Your task to perform on an android device: open device folders in google photos Image 0: 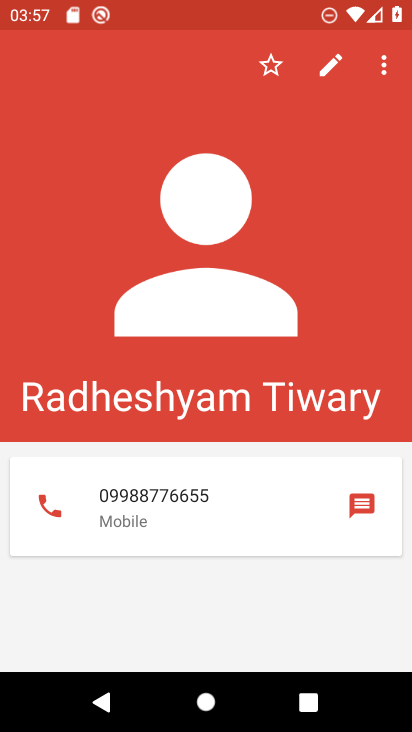
Step 0: press back button
Your task to perform on an android device: open device folders in google photos Image 1: 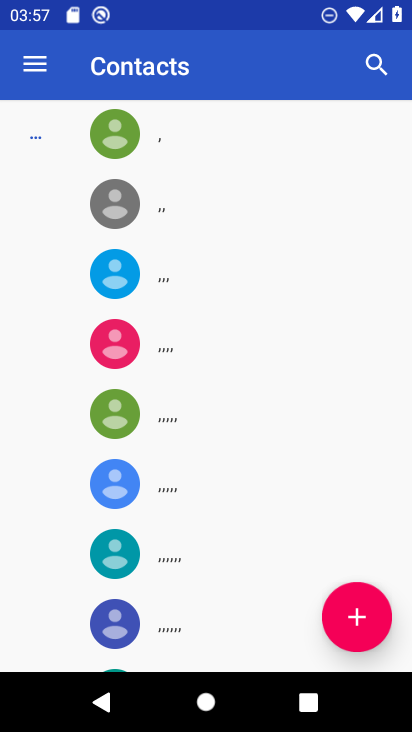
Step 1: press back button
Your task to perform on an android device: open device folders in google photos Image 2: 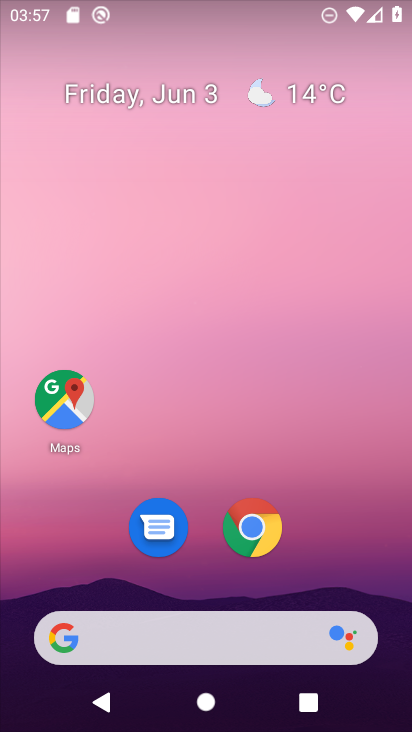
Step 2: drag from (339, 565) to (253, 5)
Your task to perform on an android device: open device folders in google photos Image 3: 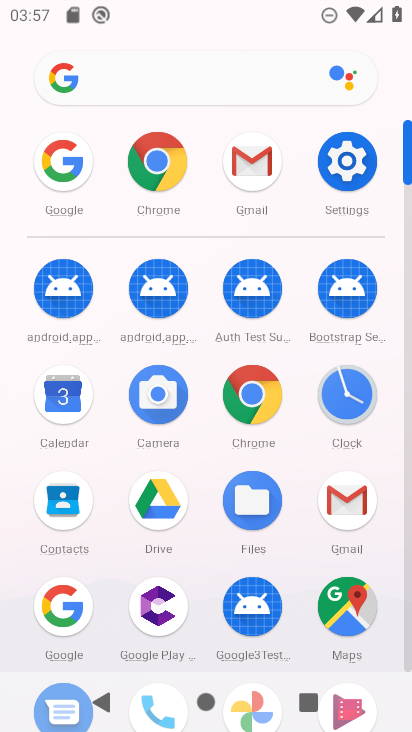
Step 3: drag from (195, 456) to (221, 184)
Your task to perform on an android device: open device folders in google photos Image 4: 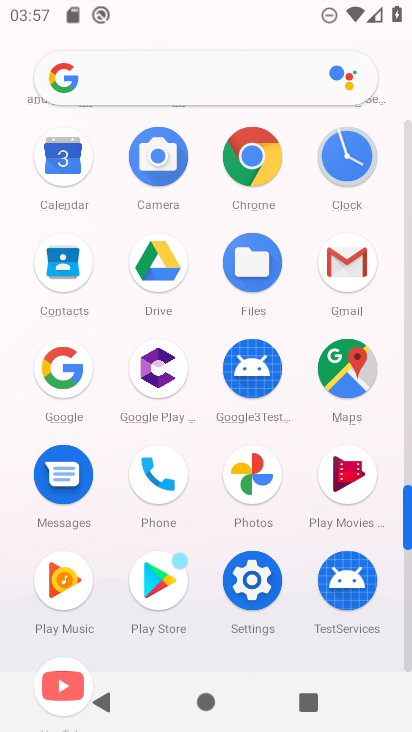
Step 4: click (253, 473)
Your task to perform on an android device: open device folders in google photos Image 5: 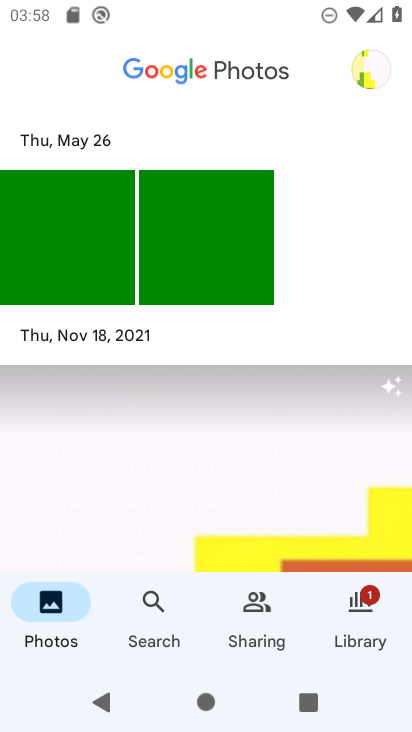
Step 5: click (156, 602)
Your task to perform on an android device: open device folders in google photos Image 6: 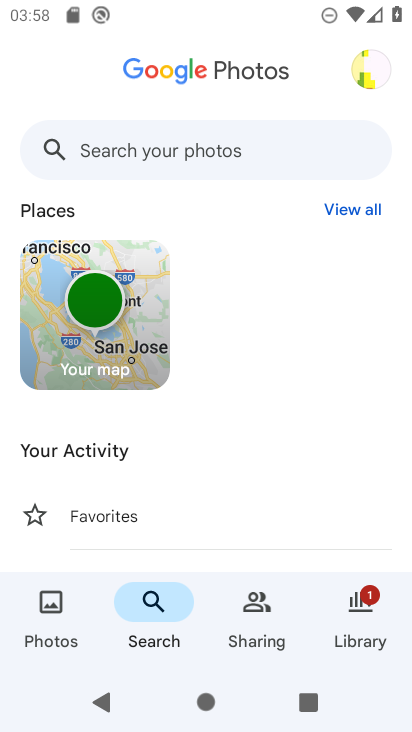
Step 6: task complete